Your task to perform on an android device: When is my next meeting? Image 0: 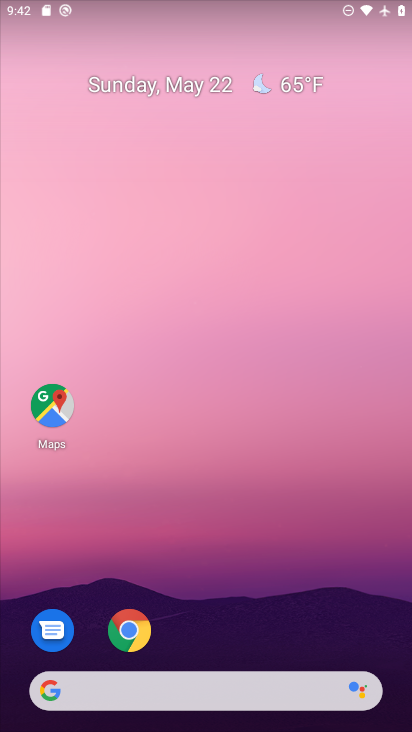
Step 0: press home button
Your task to perform on an android device: When is my next meeting? Image 1: 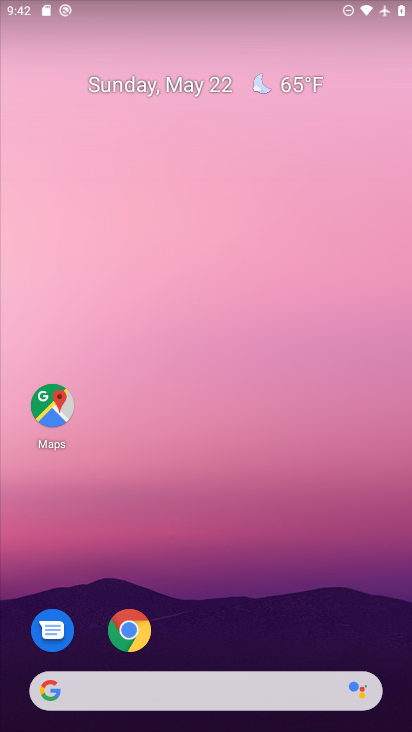
Step 1: drag from (128, 691) to (299, 118)
Your task to perform on an android device: When is my next meeting? Image 2: 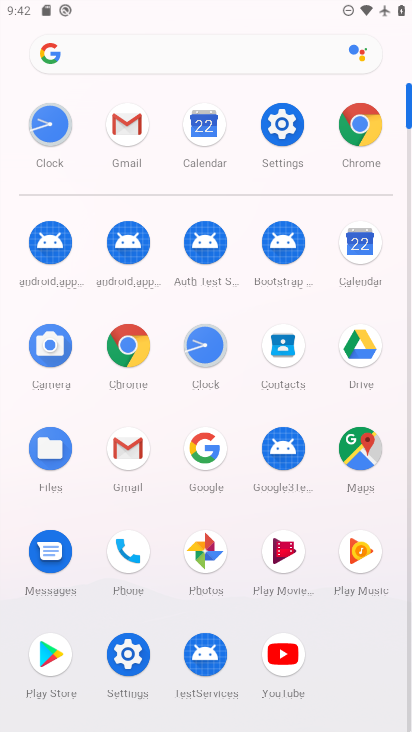
Step 2: click (363, 243)
Your task to perform on an android device: When is my next meeting? Image 3: 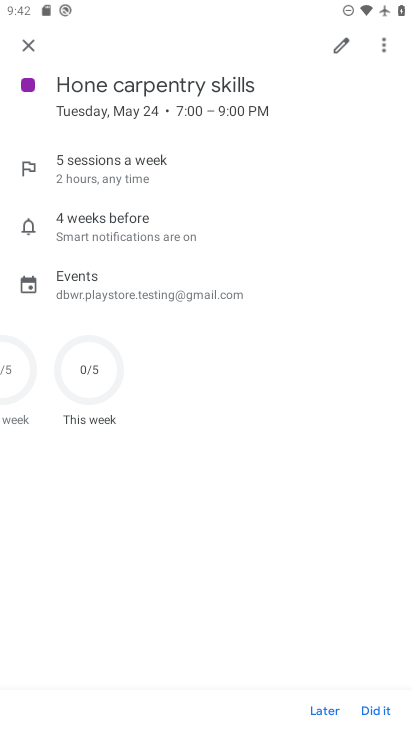
Step 3: click (27, 44)
Your task to perform on an android device: When is my next meeting? Image 4: 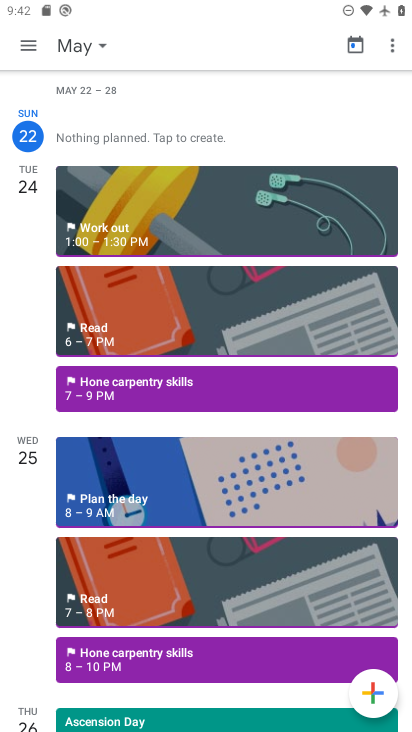
Step 4: task complete